Your task to perform on an android device: see creations saved in the google photos Image 0: 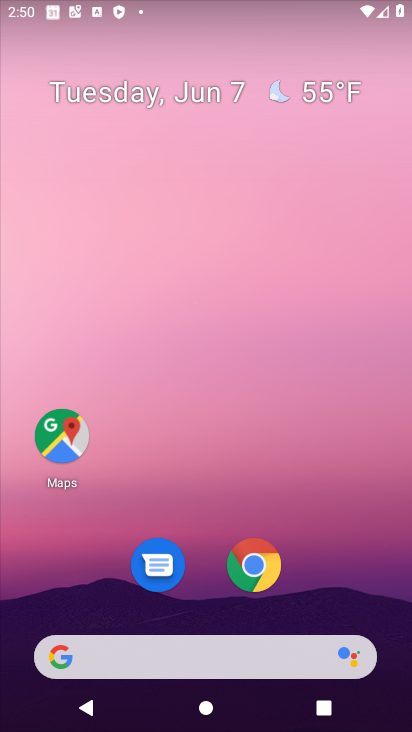
Step 0: drag from (312, 645) to (286, 0)
Your task to perform on an android device: see creations saved in the google photos Image 1: 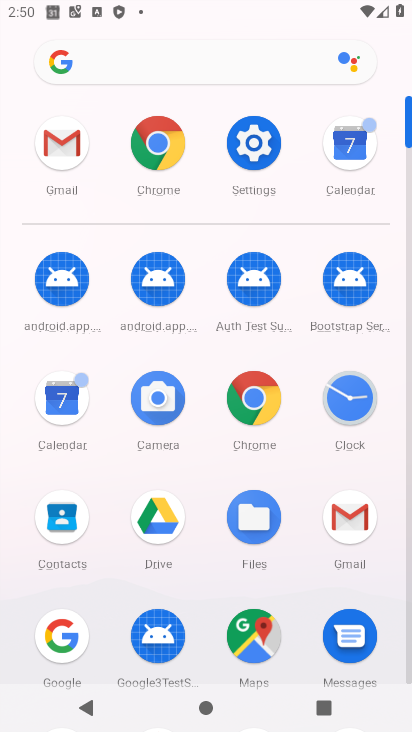
Step 1: drag from (283, 580) to (264, 240)
Your task to perform on an android device: see creations saved in the google photos Image 2: 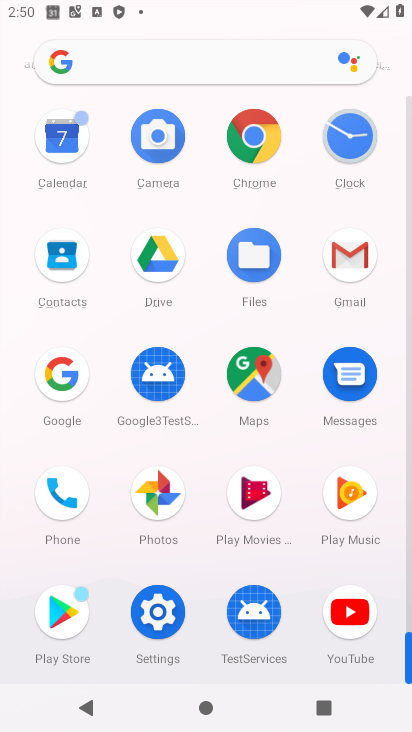
Step 2: click (176, 494)
Your task to perform on an android device: see creations saved in the google photos Image 3: 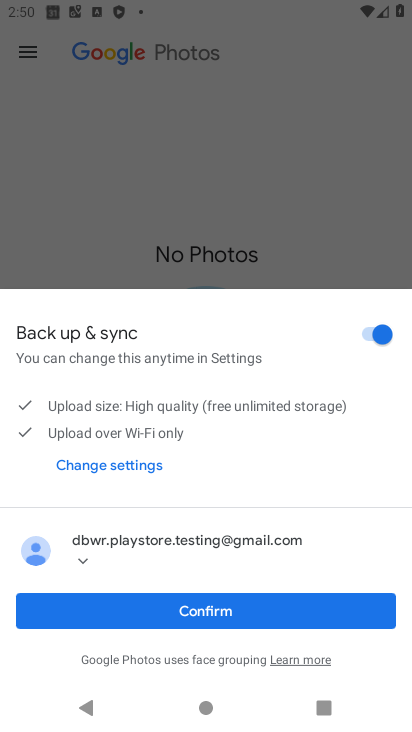
Step 3: click (309, 624)
Your task to perform on an android device: see creations saved in the google photos Image 4: 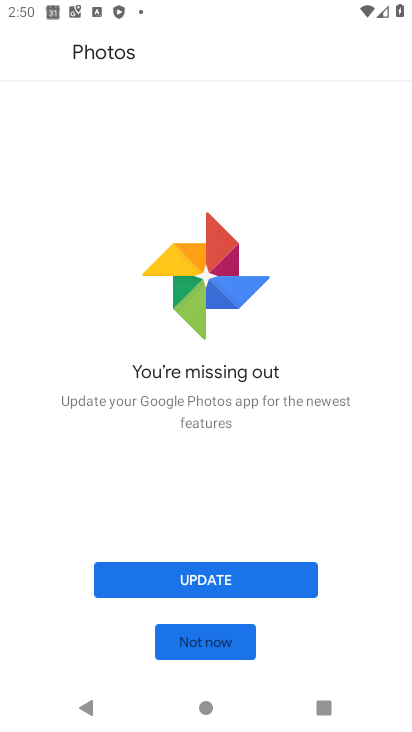
Step 4: click (281, 583)
Your task to perform on an android device: see creations saved in the google photos Image 5: 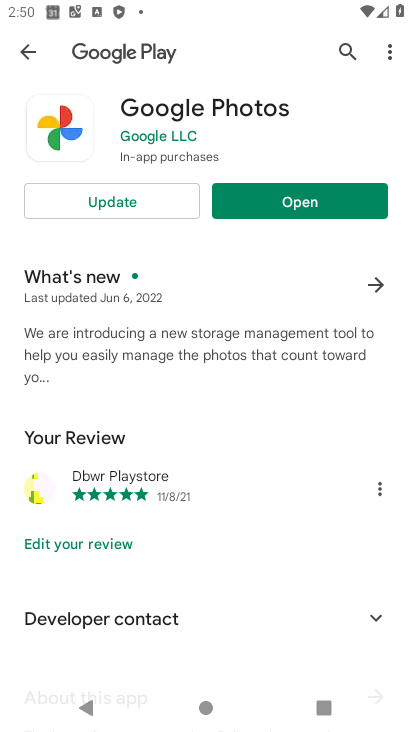
Step 5: click (173, 204)
Your task to perform on an android device: see creations saved in the google photos Image 6: 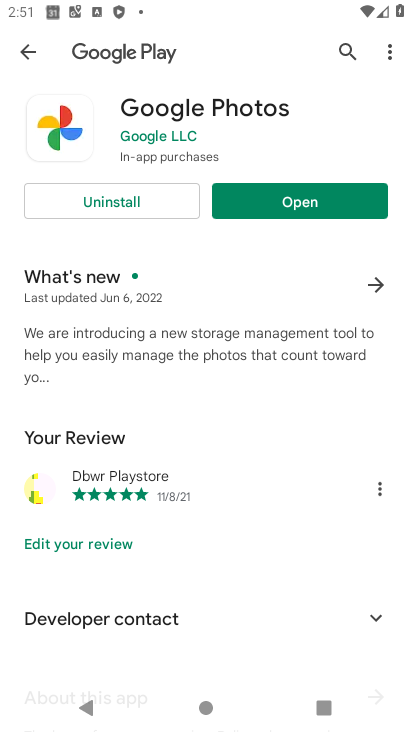
Step 6: click (317, 202)
Your task to perform on an android device: see creations saved in the google photos Image 7: 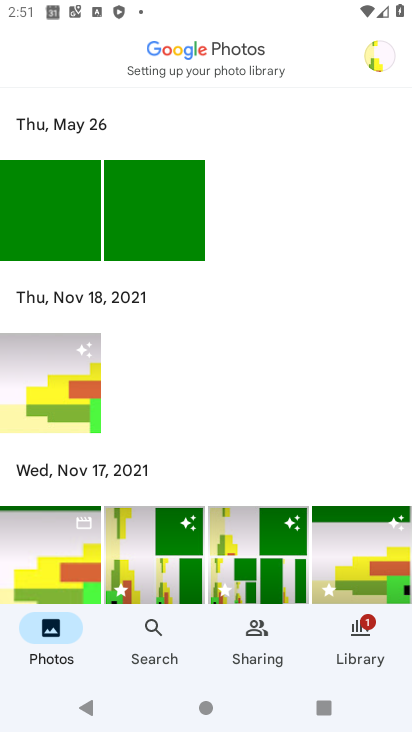
Step 7: task complete